Your task to perform on an android device: Do I have any events this weekend? Image 0: 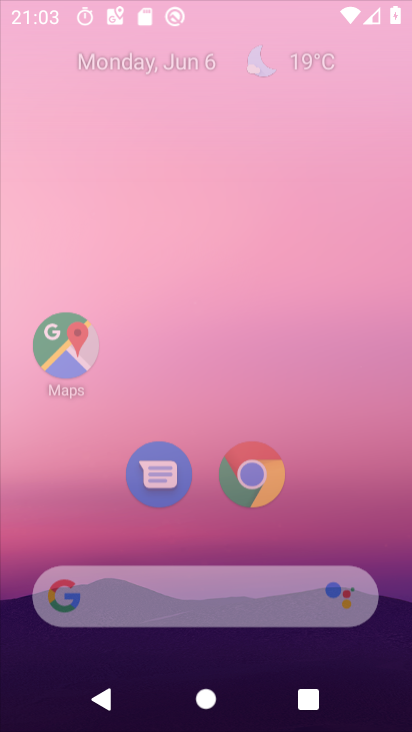
Step 0: press home button
Your task to perform on an android device: Do I have any events this weekend? Image 1: 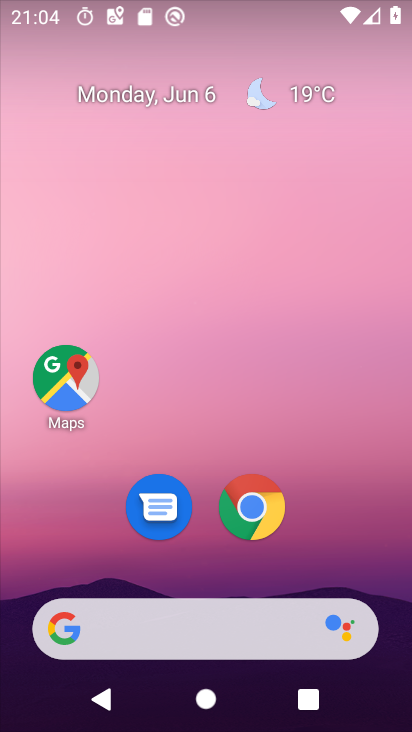
Step 1: drag from (333, 535) to (334, 186)
Your task to perform on an android device: Do I have any events this weekend? Image 2: 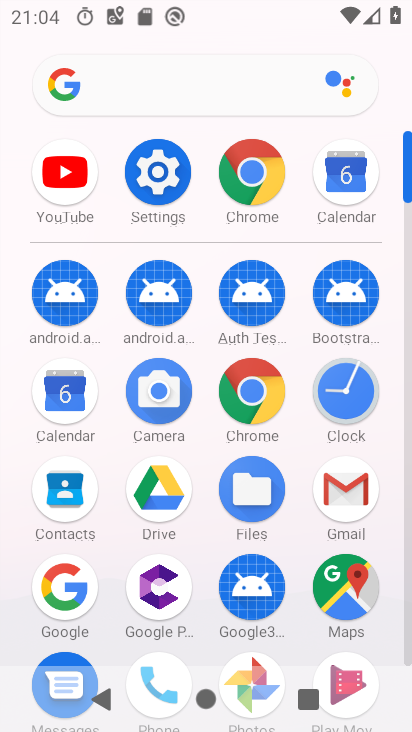
Step 2: click (91, 383)
Your task to perform on an android device: Do I have any events this weekend? Image 3: 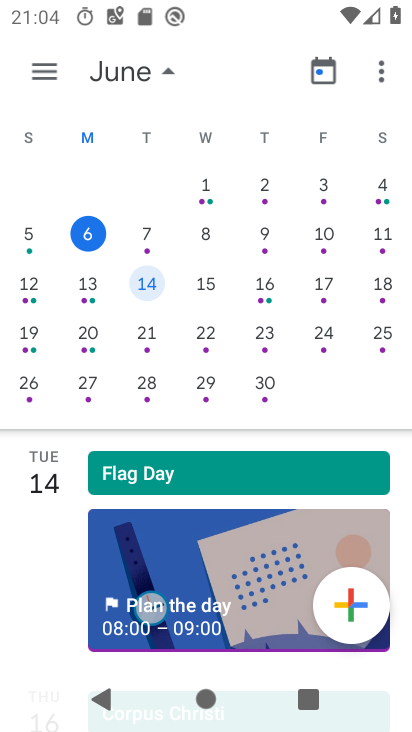
Step 3: click (374, 286)
Your task to perform on an android device: Do I have any events this weekend? Image 4: 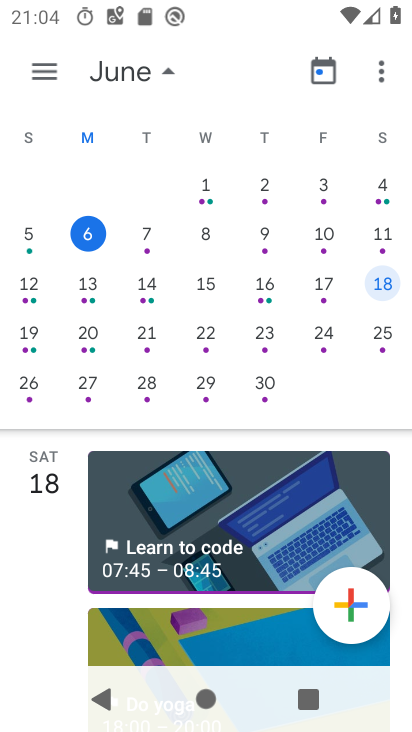
Step 4: task complete